Your task to perform on an android device: check the backup settings in the google photos Image 0: 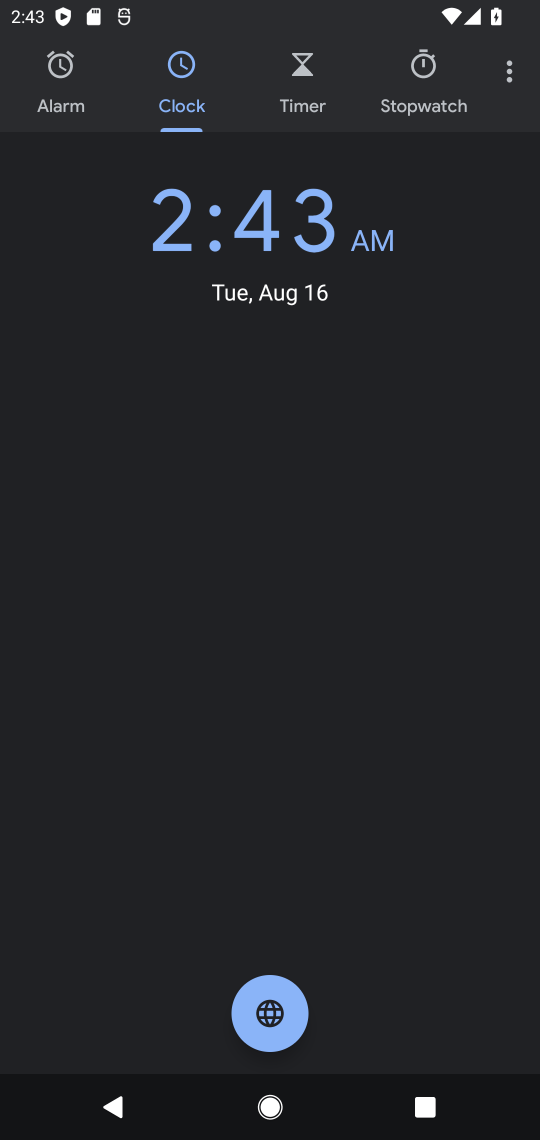
Step 0: press home button
Your task to perform on an android device: check the backup settings in the google photos Image 1: 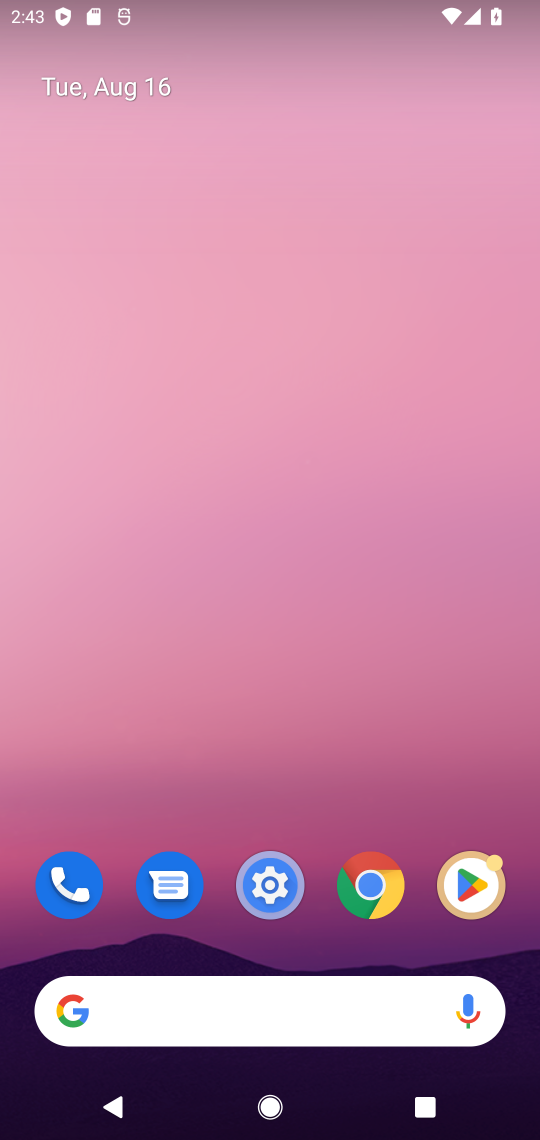
Step 1: drag from (258, 807) to (490, 444)
Your task to perform on an android device: check the backup settings in the google photos Image 2: 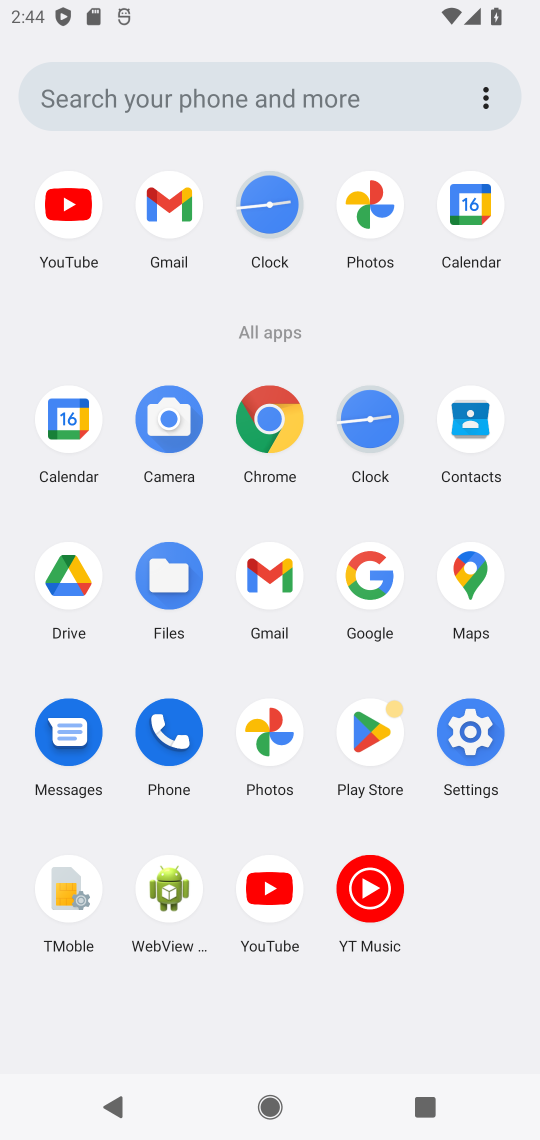
Step 2: click (276, 733)
Your task to perform on an android device: check the backup settings in the google photos Image 3: 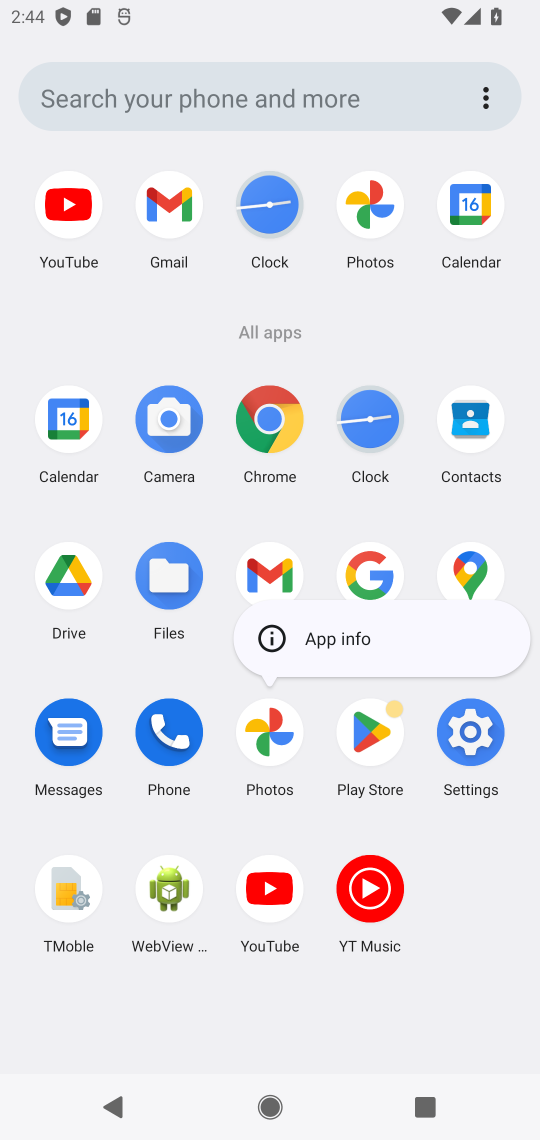
Step 3: click (276, 733)
Your task to perform on an android device: check the backup settings in the google photos Image 4: 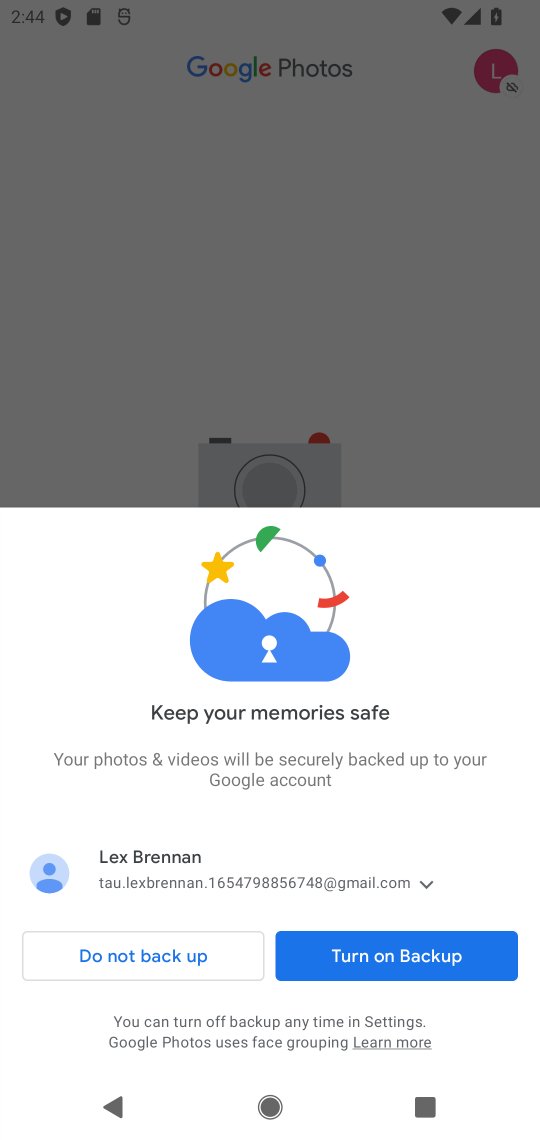
Step 4: click (387, 962)
Your task to perform on an android device: check the backup settings in the google photos Image 5: 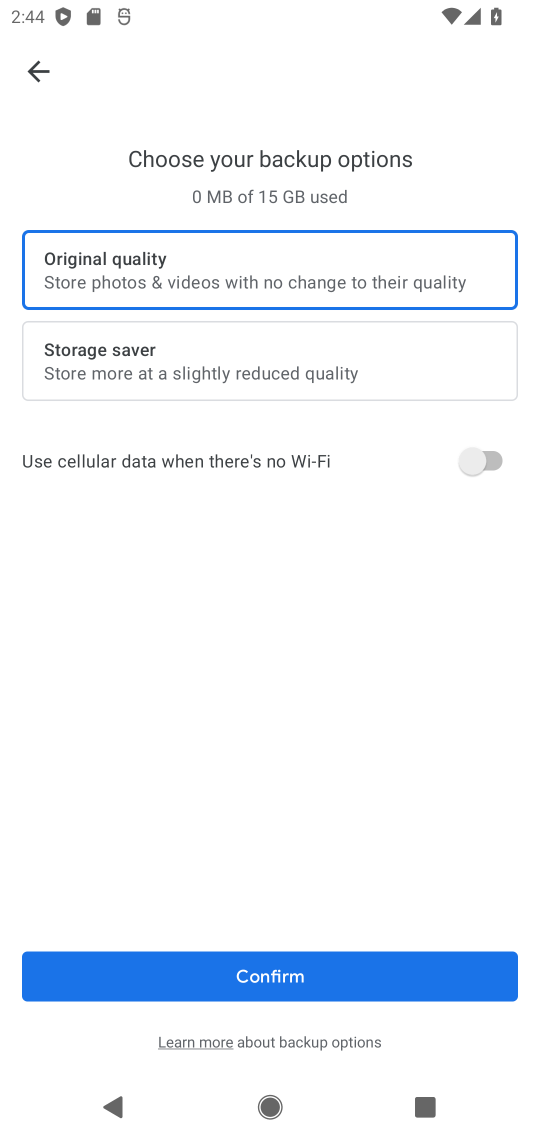
Step 5: click (215, 292)
Your task to perform on an android device: check the backup settings in the google photos Image 6: 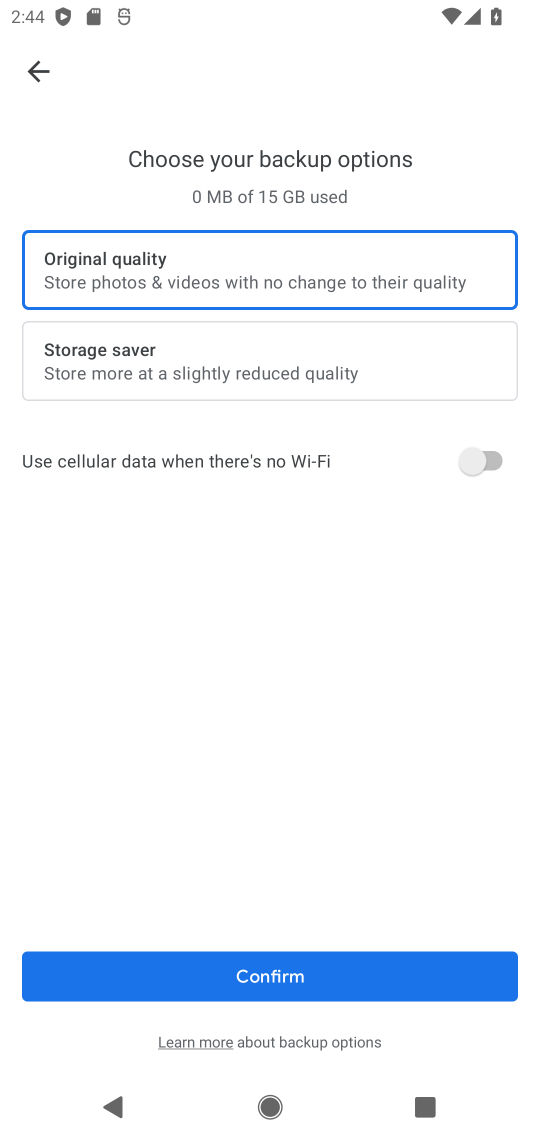
Step 6: click (207, 286)
Your task to perform on an android device: check the backup settings in the google photos Image 7: 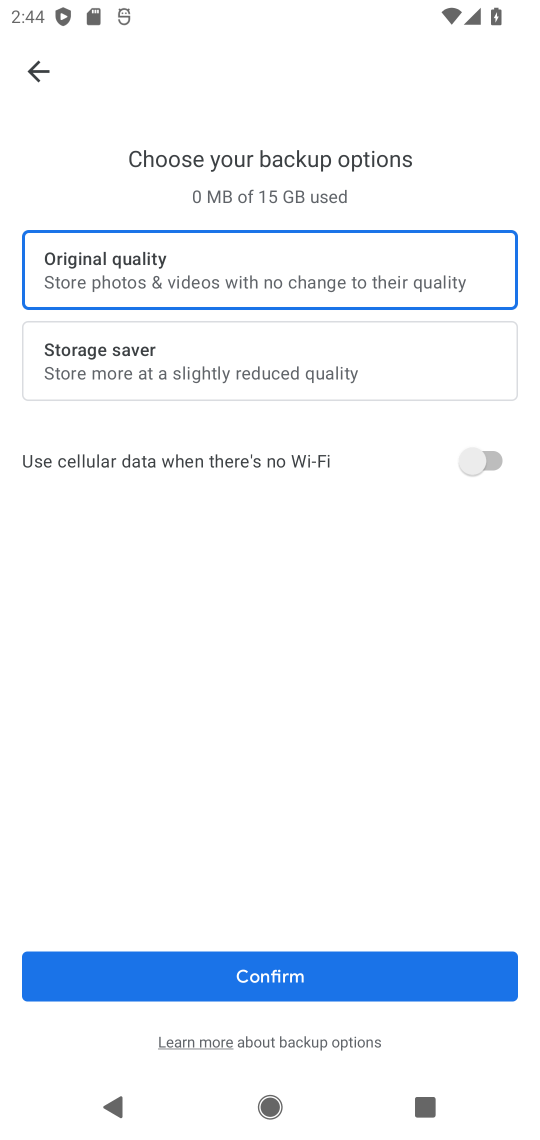
Step 7: click (204, 286)
Your task to perform on an android device: check the backup settings in the google photos Image 8: 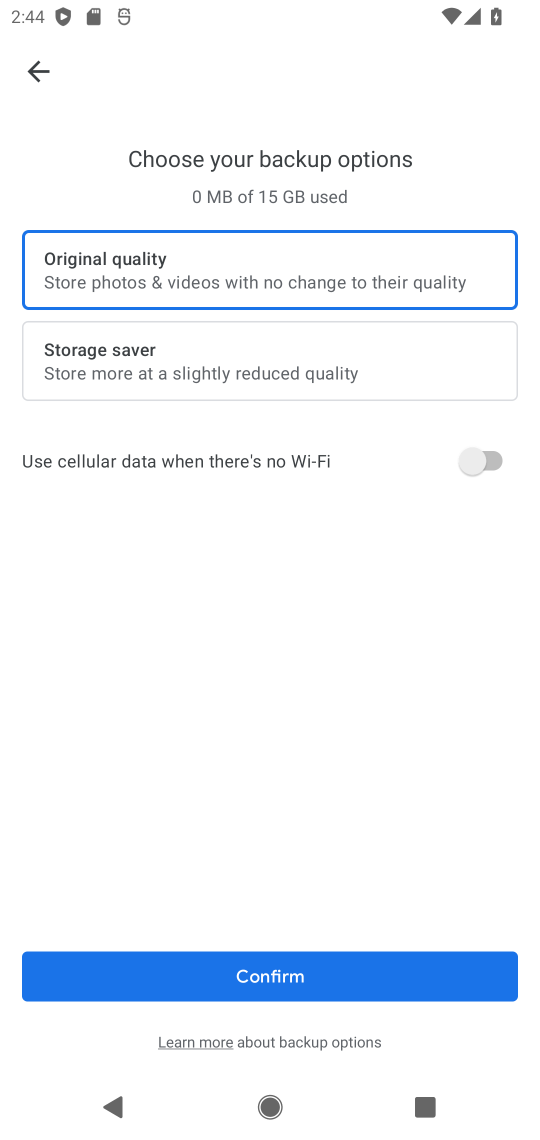
Step 8: click (148, 385)
Your task to perform on an android device: check the backup settings in the google photos Image 9: 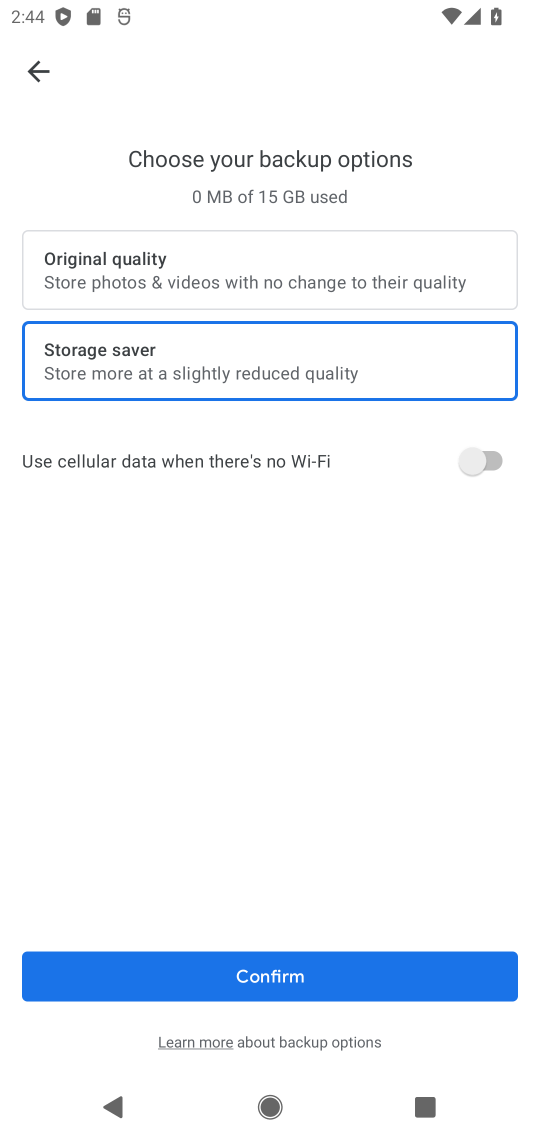
Step 9: click (363, 972)
Your task to perform on an android device: check the backup settings in the google photos Image 10: 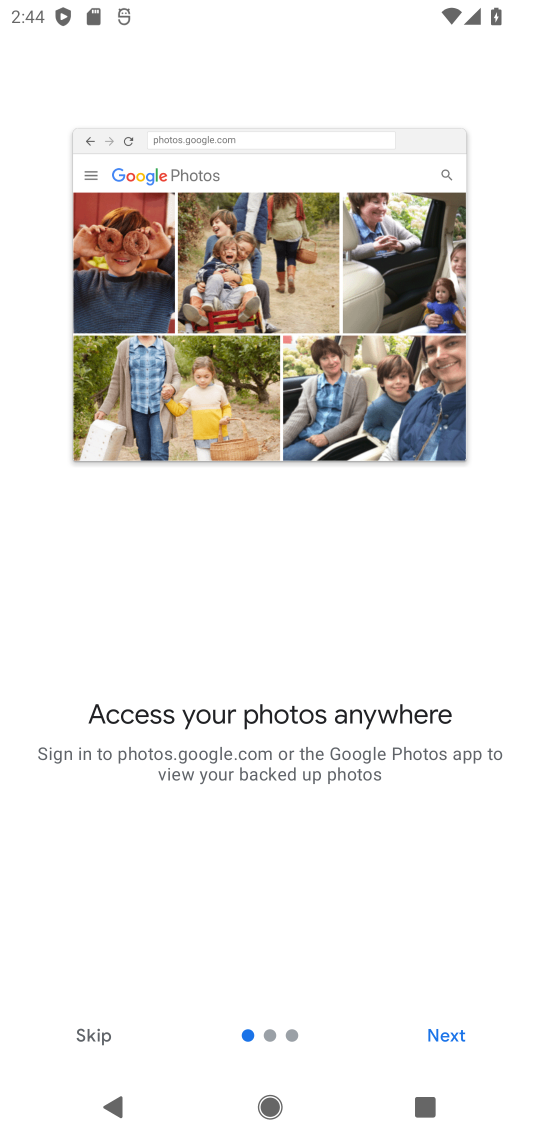
Step 10: click (88, 1036)
Your task to perform on an android device: check the backup settings in the google photos Image 11: 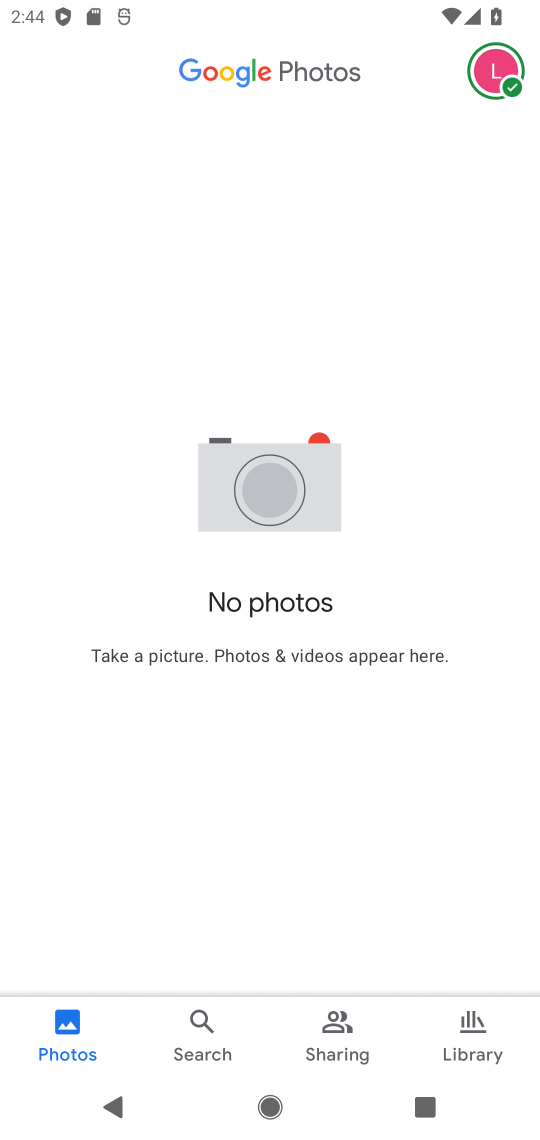
Step 11: click (479, 76)
Your task to perform on an android device: check the backup settings in the google photos Image 12: 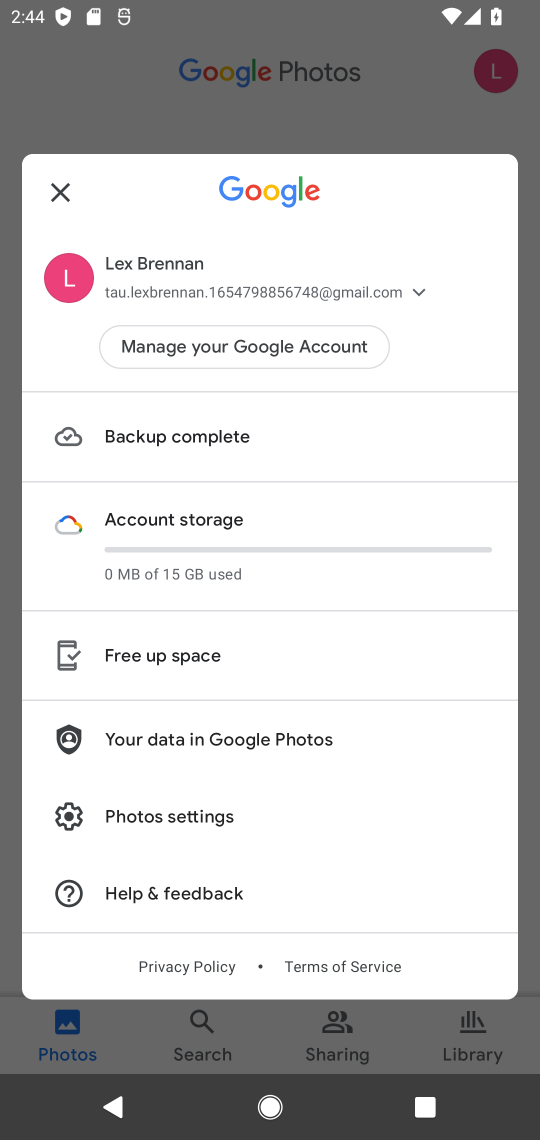
Step 12: click (164, 819)
Your task to perform on an android device: check the backup settings in the google photos Image 13: 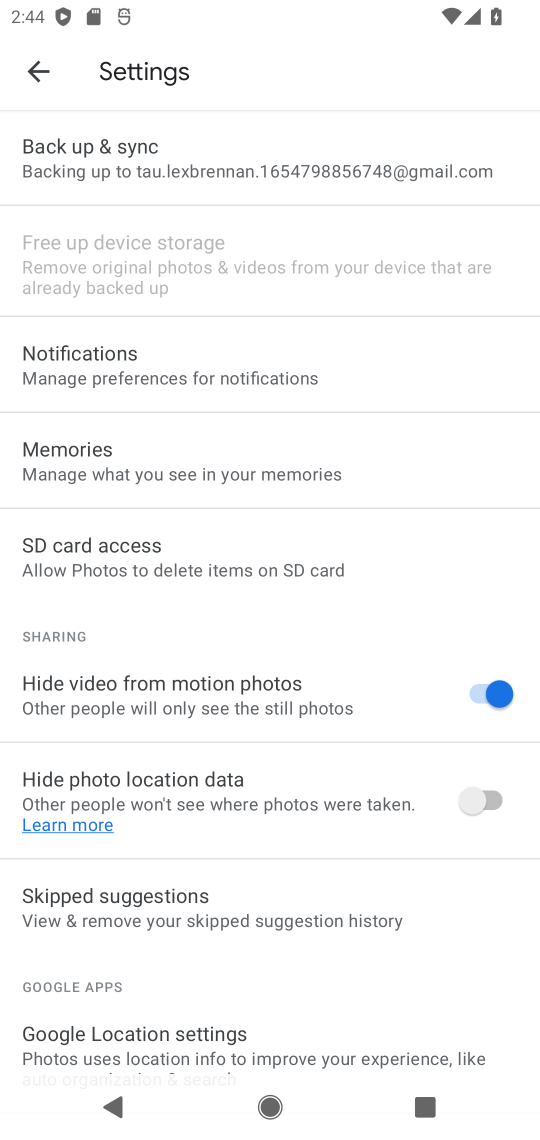
Step 13: click (193, 135)
Your task to perform on an android device: check the backup settings in the google photos Image 14: 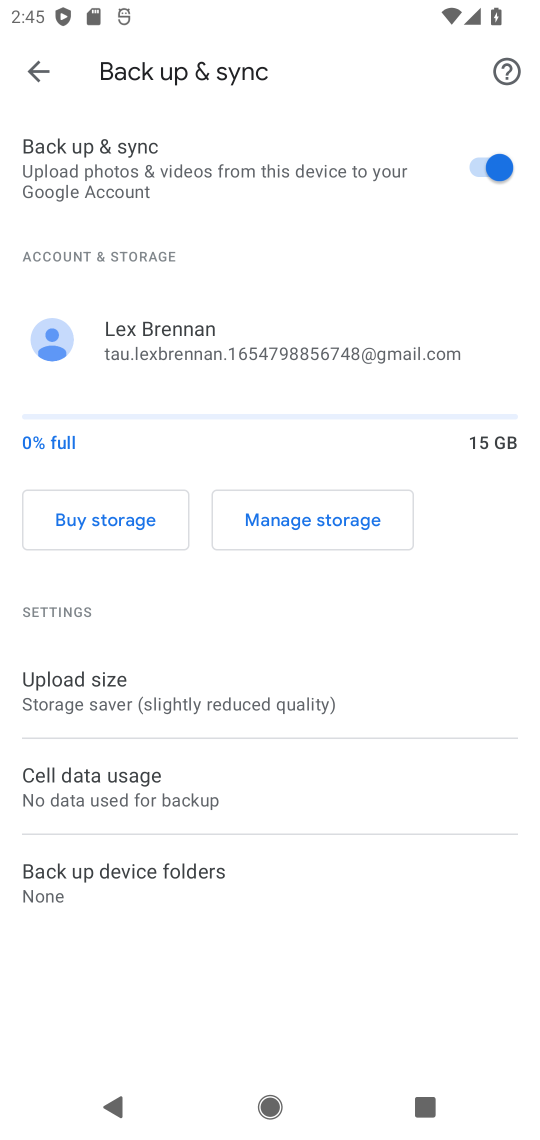
Step 14: task complete